Your task to perform on an android device: Add "razer nari" to the cart on costco.com, then select checkout. Image 0: 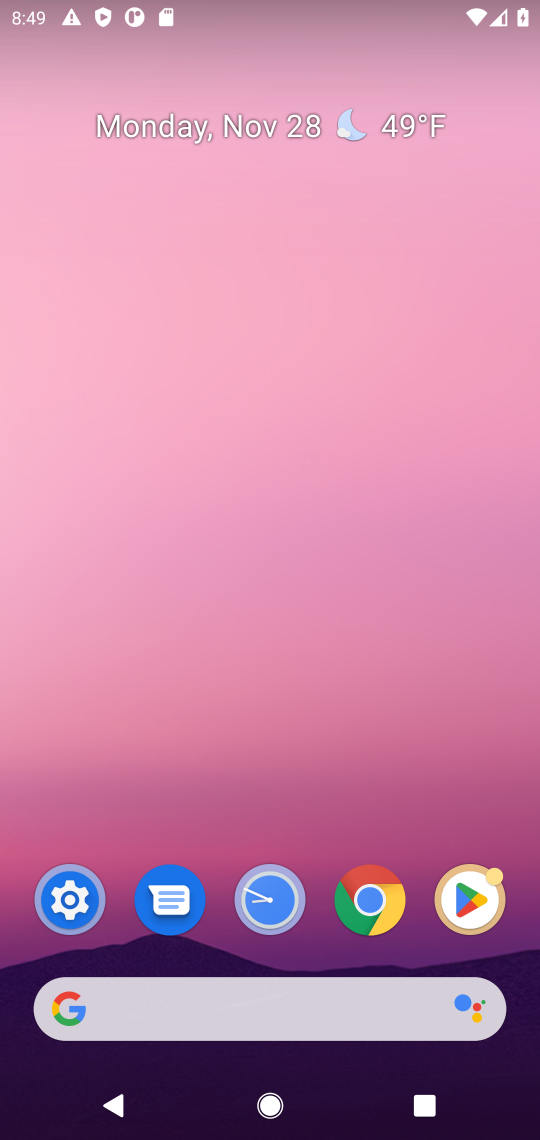
Step 0: press home button
Your task to perform on an android device: Add "razer nari" to the cart on costco.com, then select checkout. Image 1: 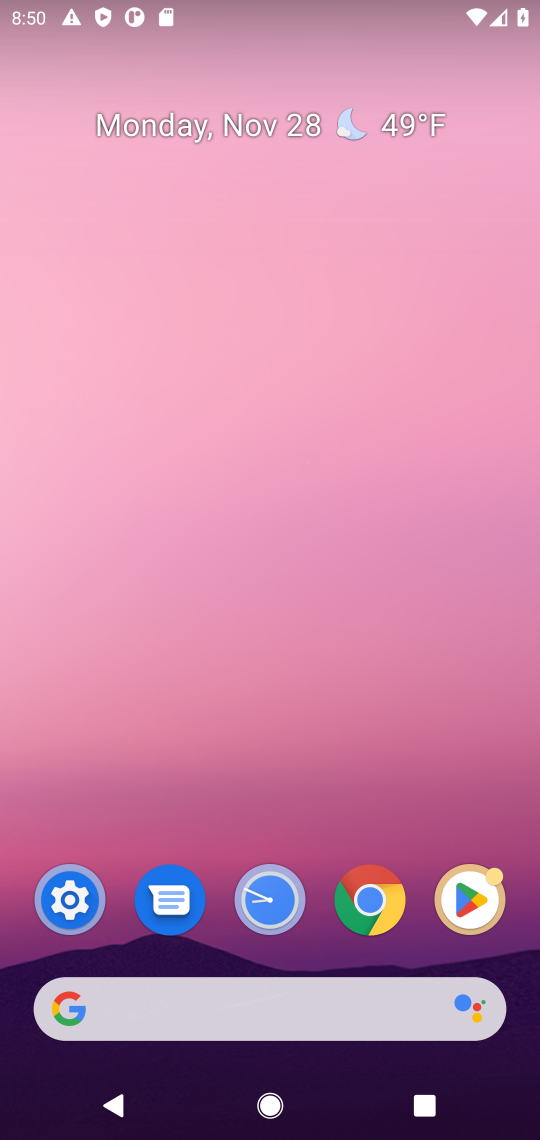
Step 1: click (192, 1016)
Your task to perform on an android device: Add "razer nari" to the cart on costco.com, then select checkout. Image 2: 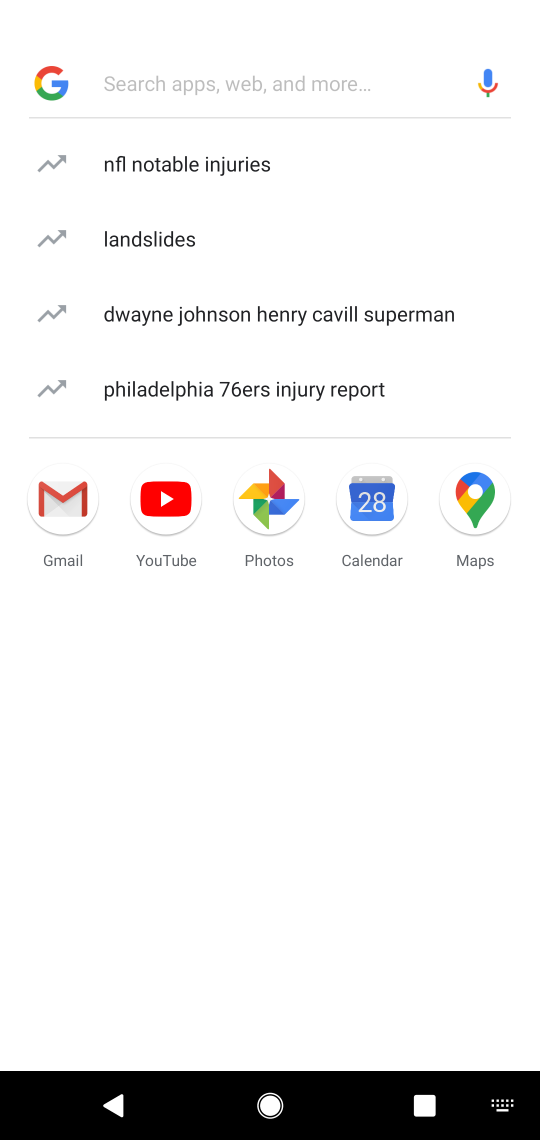
Step 2: type "costco.com"
Your task to perform on an android device: Add "razer nari" to the cart on costco.com, then select checkout. Image 3: 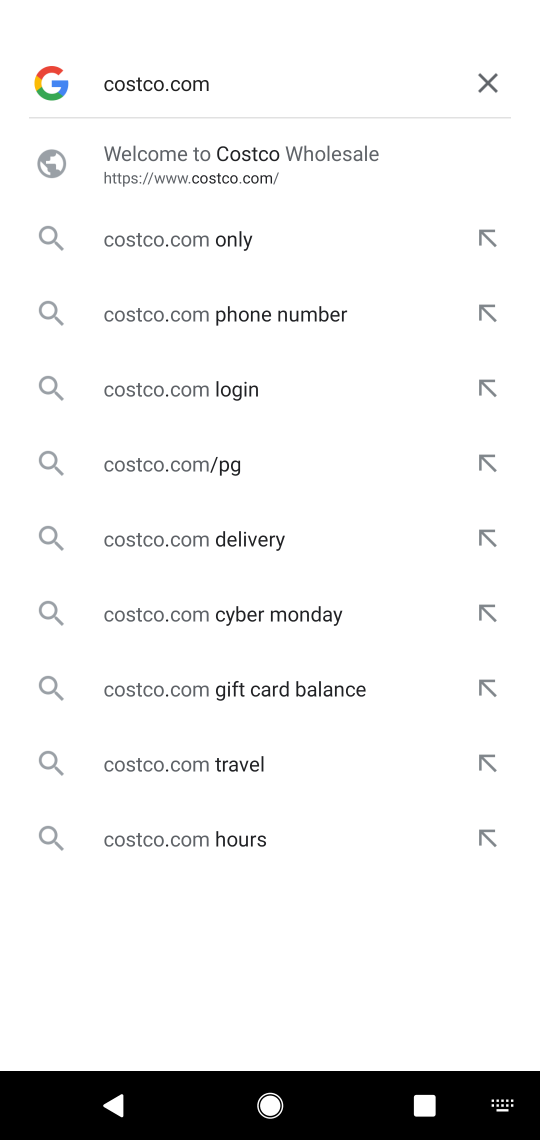
Step 3: click (146, 176)
Your task to perform on an android device: Add "razer nari" to the cart on costco.com, then select checkout. Image 4: 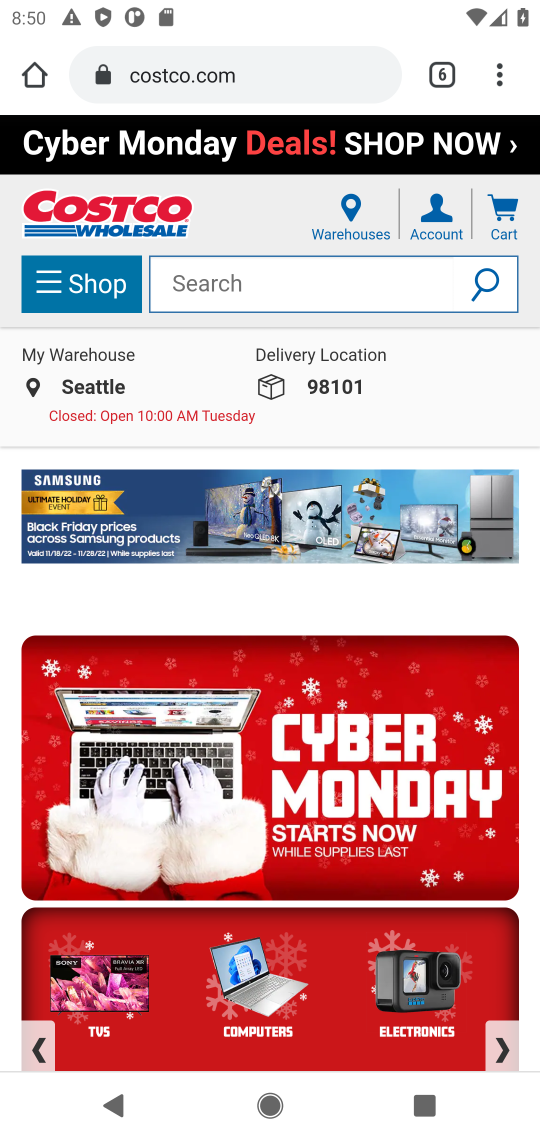
Step 4: click (146, 176)
Your task to perform on an android device: Add "razer nari" to the cart on costco.com, then select checkout. Image 5: 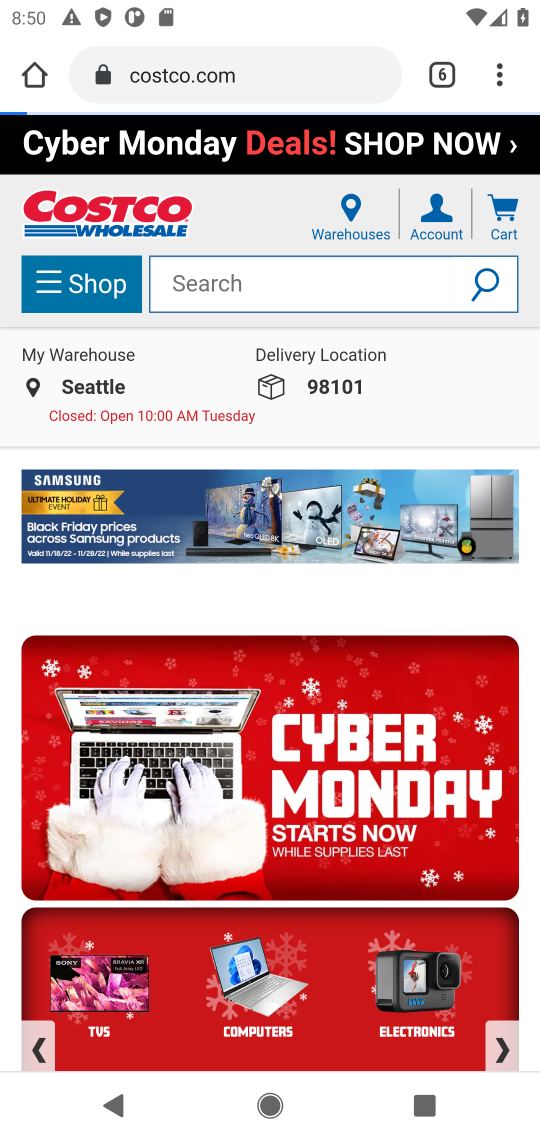
Step 5: click (336, 271)
Your task to perform on an android device: Add "razer nari" to the cart on costco.com, then select checkout. Image 6: 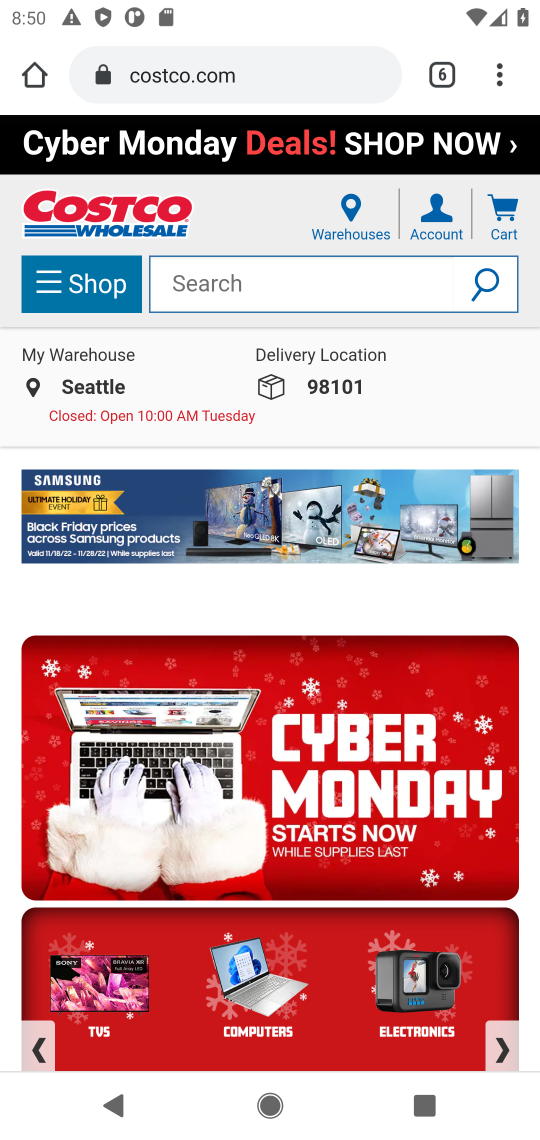
Step 6: type "razer nari"
Your task to perform on an android device: Add "razer nari" to the cart on costco.com, then select checkout. Image 7: 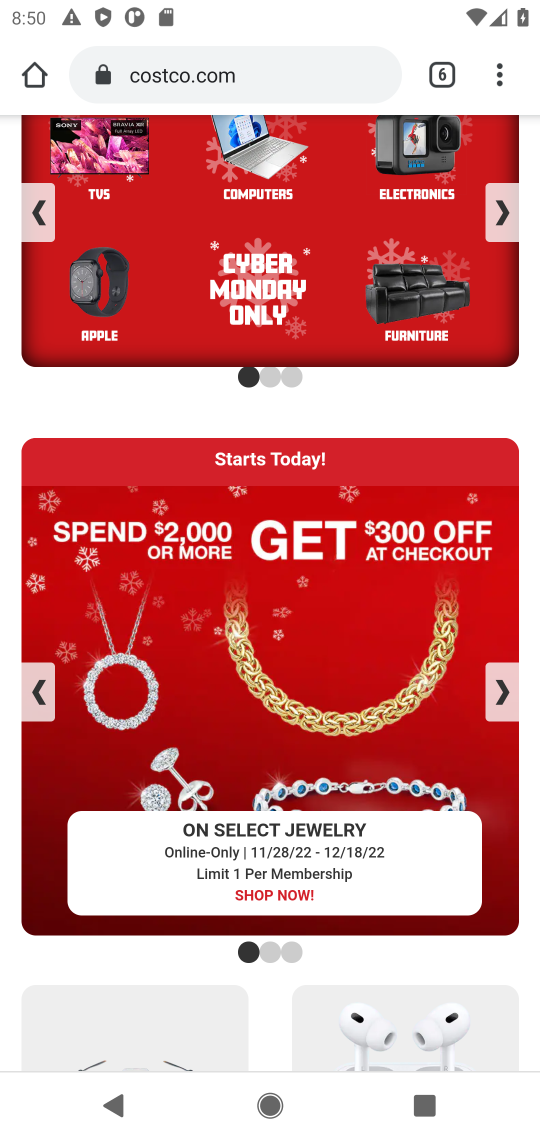
Step 7: task complete